Your task to perform on an android device: Go to Wikipedia Image 0: 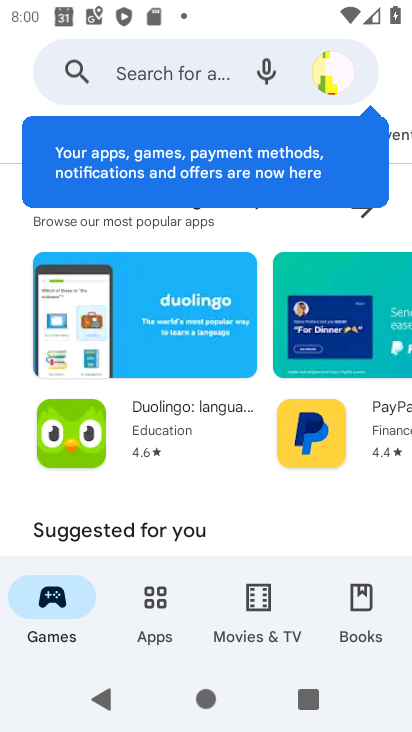
Step 0: press home button
Your task to perform on an android device: Go to Wikipedia Image 1: 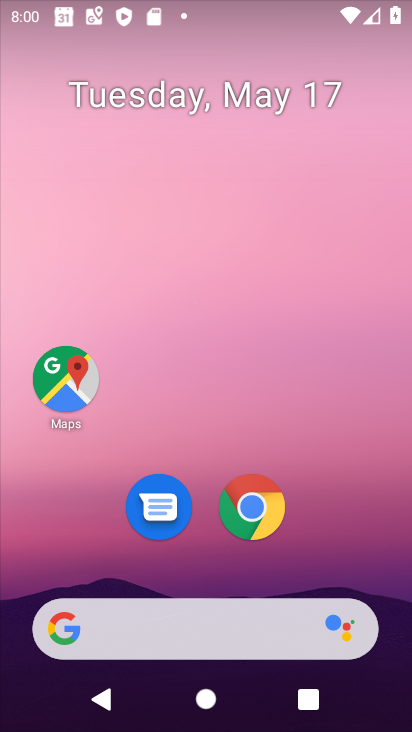
Step 1: click (255, 520)
Your task to perform on an android device: Go to Wikipedia Image 2: 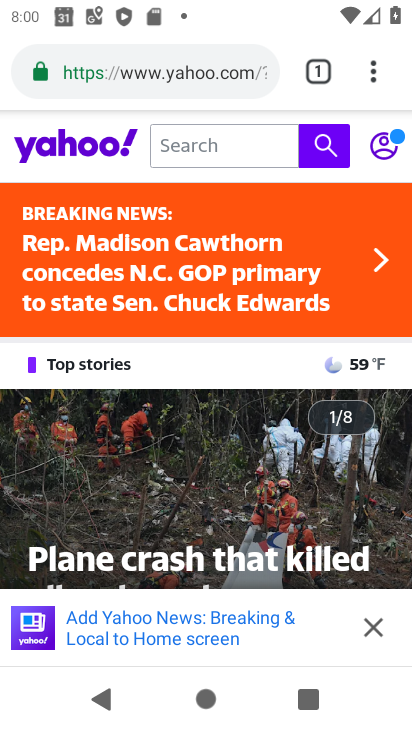
Step 2: click (133, 77)
Your task to perform on an android device: Go to Wikipedia Image 3: 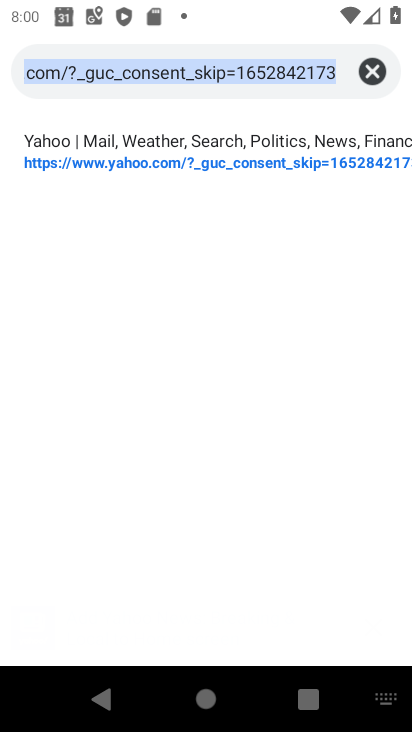
Step 3: click (361, 74)
Your task to perform on an android device: Go to Wikipedia Image 4: 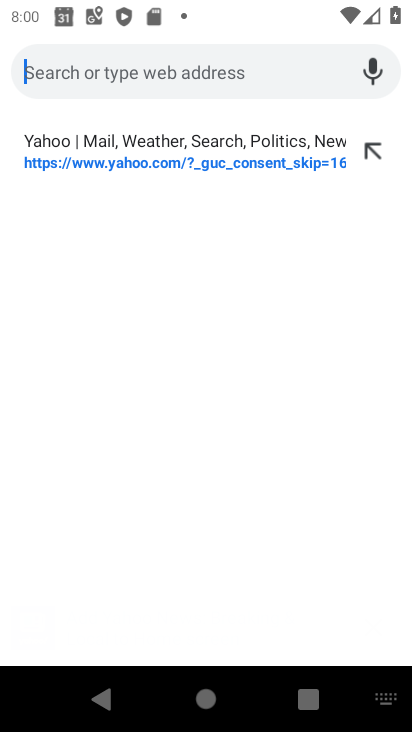
Step 4: type "wikipedia"
Your task to perform on an android device: Go to Wikipedia Image 5: 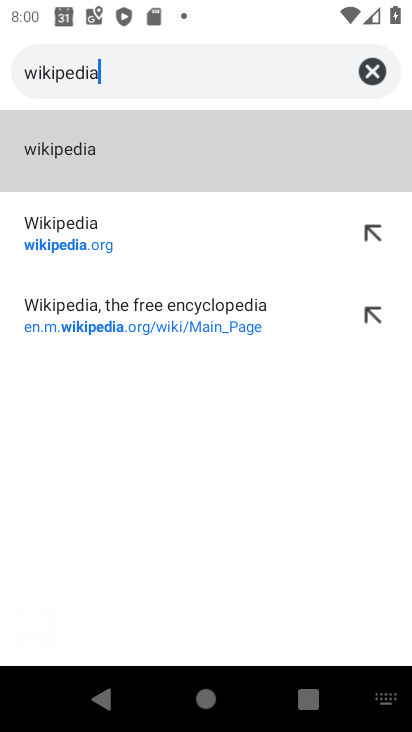
Step 5: click (77, 159)
Your task to perform on an android device: Go to Wikipedia Image 6: 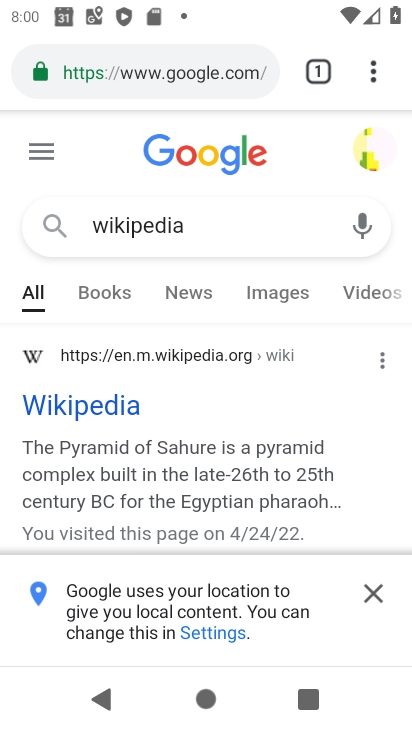
Step 6: click (73, 420)
Your task to perform on an android device: Go to Wikipedia Image 7: 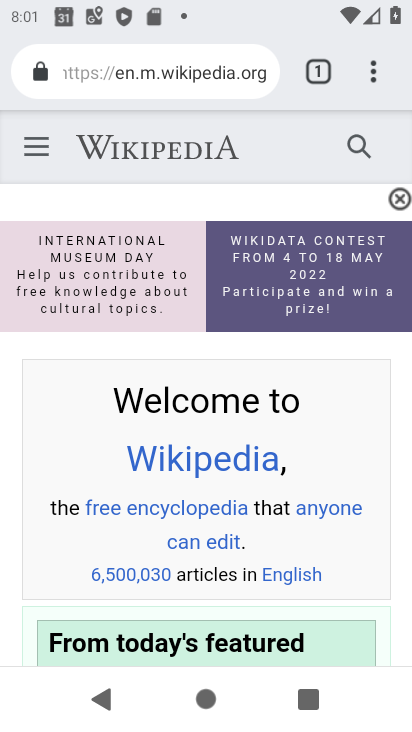
Step 7: task complete